Your task to perform on an android device: toggle pop-ups in chrome Image 0: 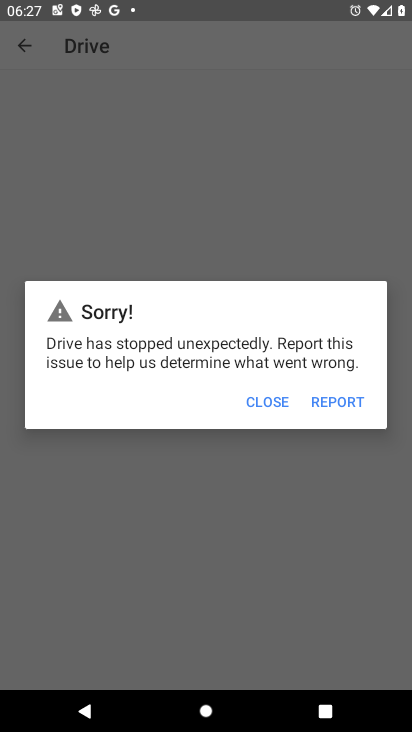
Step 0: press back button
Your task to perform on an android device: toggle pop-ups in chrome Image 1: 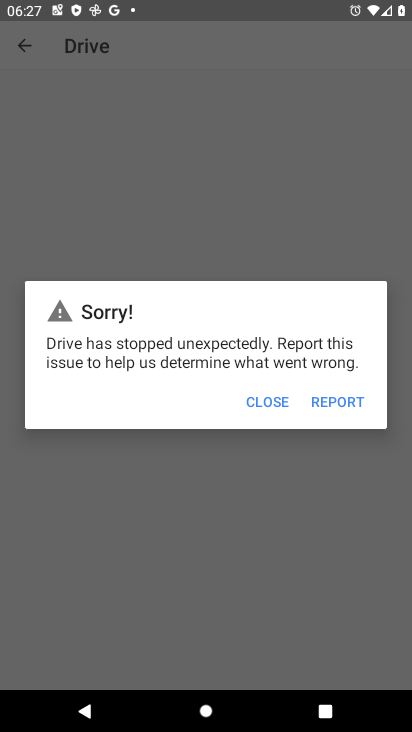
Step 1: press home button
Your task to perform on an android device: toggle pop-ups in chrome Image 2: 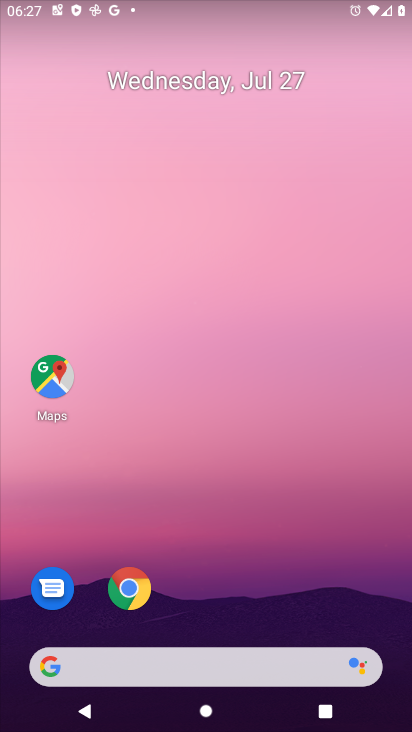
Step 2: click (130, 596)
Your task to perform on an android device: toggle pop-ups in chrome Image 3: 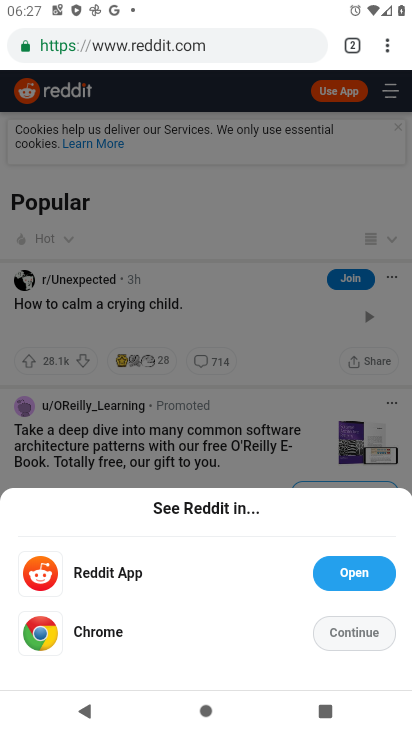
Step 3: click (356, 625)
Your task to perform on an android device: toggle pop-ups in chrome Image 4: 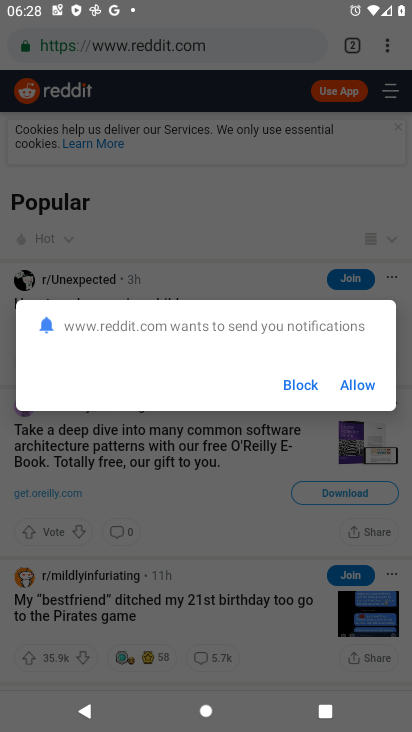
Step 4: click (307, 387)
Your task to perform on an android device: toggle pop-ups in chrome Image 5: 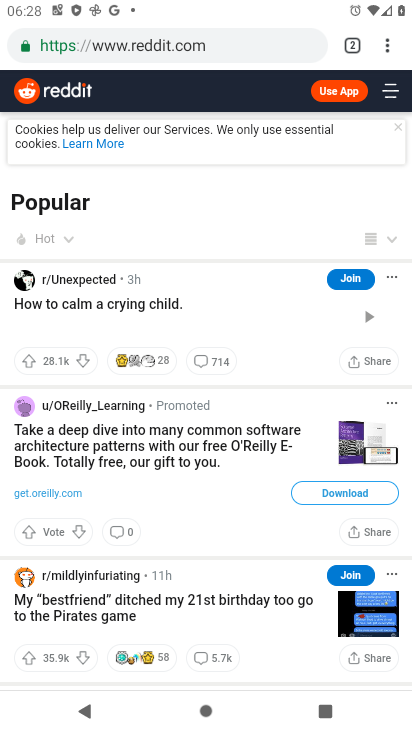
Step 5: click (387, 51)
Your task to perform on an android device: toggle pop-ups in chrome Image 6: 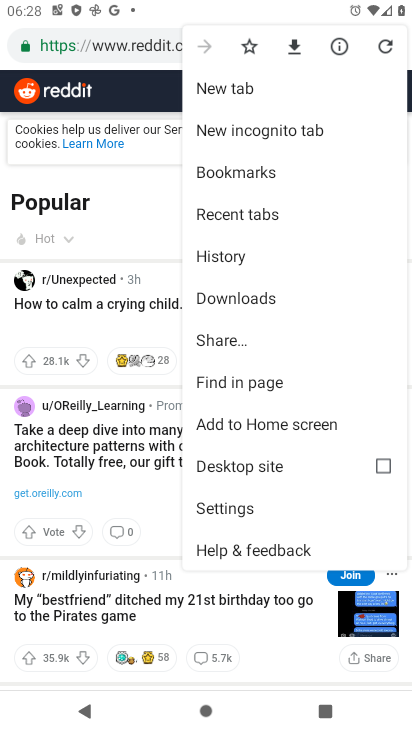
Step 6: click (213, 504)
Your task to perform on an android device: toggle pop-ups in chrome Image 7: 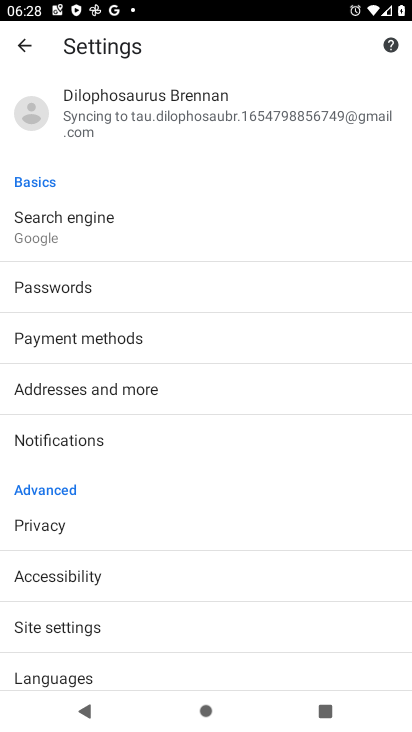
Step 7: drag from (133, 554) to (166, 237)
Your task to perform on an android device: toggle pop-ups in chrome Image 8: 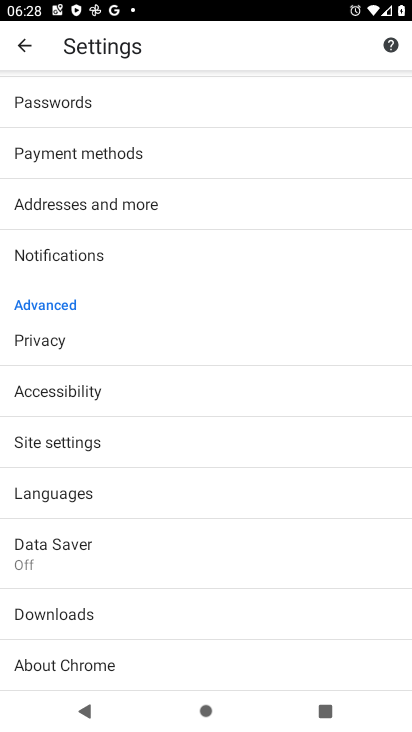
Step 8: drag from (84, 586) to (113, 244)
Your task to perform on an android device: toggle pop-ups in chrome Image 9: 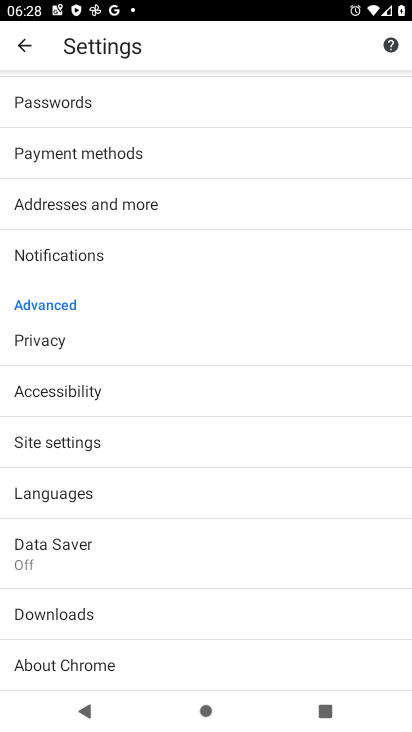
Step 9: click (86, 438)
Your task to perform on an android device: toggle pop-ups in chrome Image 10: 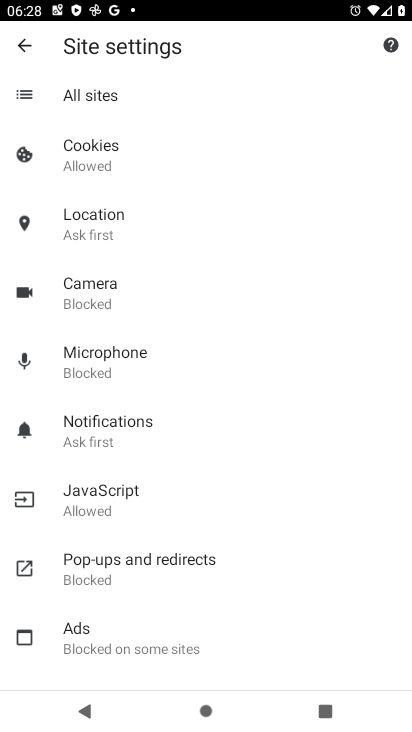
Step 10: click (93, 559)
Your task to perform on an android device: toggle pop-ups in chrome Image 11: 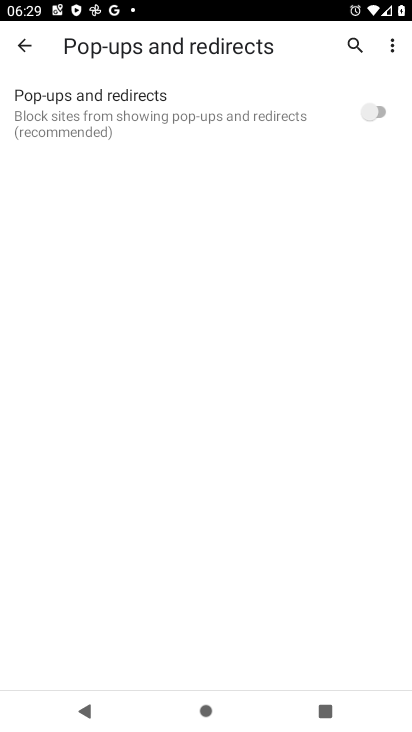
Step 11: click (385, 115)
Your task to perform on an android device: toggle pop-ups in chrome Image 12: 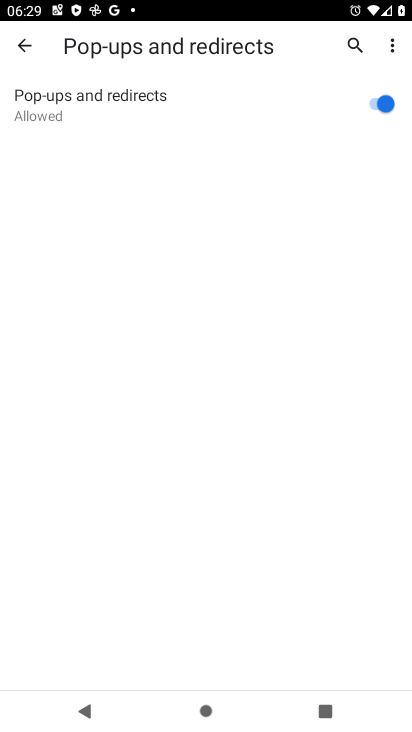
Step 12: task complete